Your task to perform on an android device: change the clock display to analog Image 0: 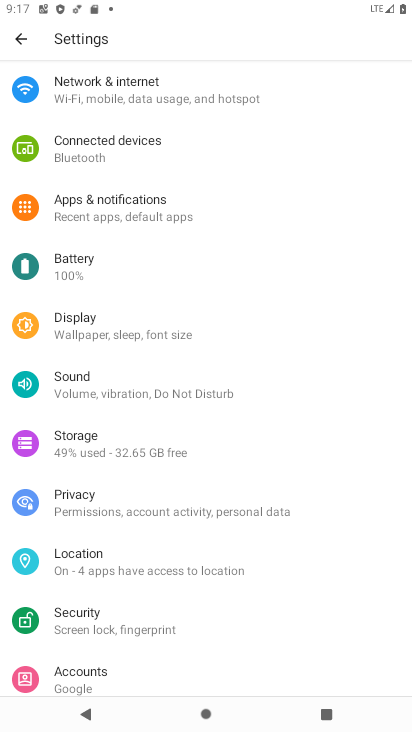
Step 0: press home button
Your task to perform on an android device: change the clock display to analog Image 1: 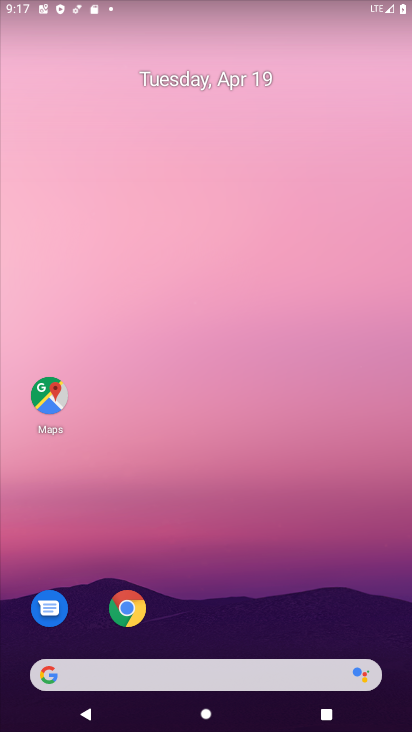
Step 1: drag from (363, 627) to (331, 119)
Your task to perform on an android device: change the clock display to analog Image 2: 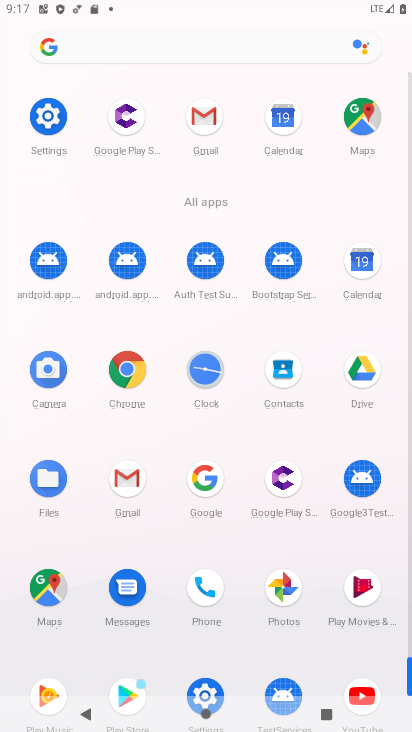
Step 2: click (204, 368)
Your task to perform on an android device: change the clock display to analog Image 3: 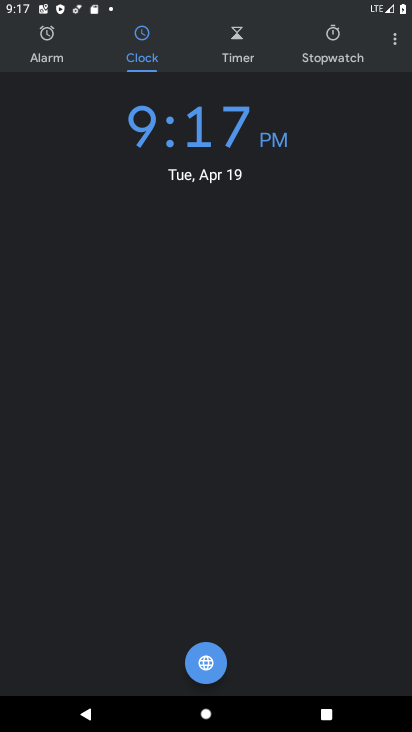
Step 3: click (394, 39)
Your task to perform on an android device: change the clock display to analog Image 4: 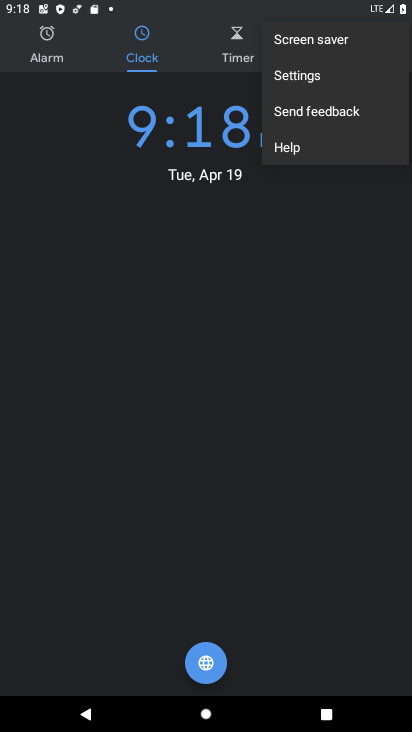
Step 4: click (296, 74)
Your task to perform on an android device: change the clock display to analog Image 5: 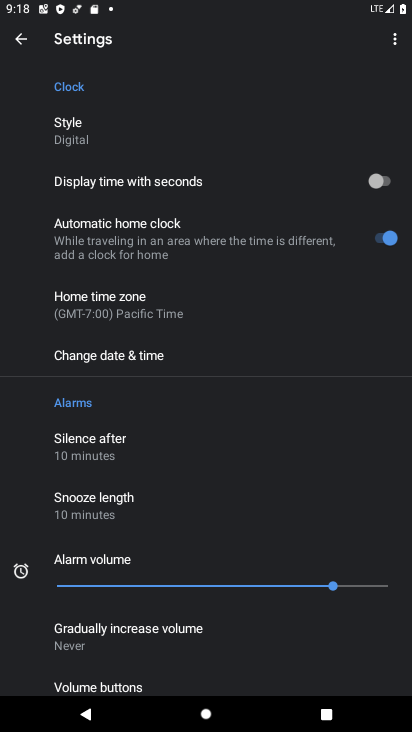
Step 5: click (65, 122)
Your task to perform on an android device: change the clock display to analog Image 6: 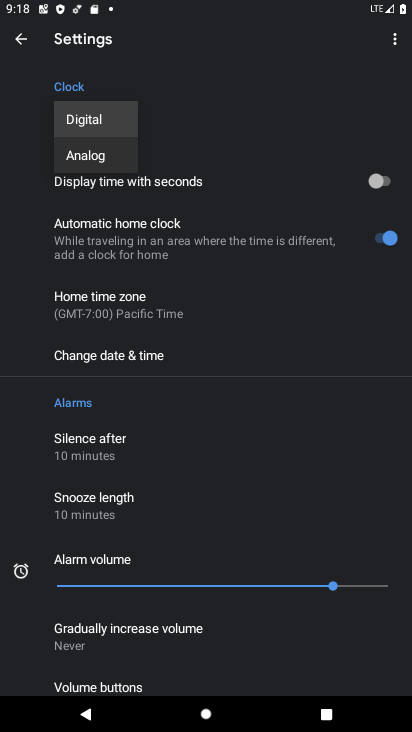
Step 6: click (86, 152)
Your task to perform on an android device: change the clock display to analog Image 7: 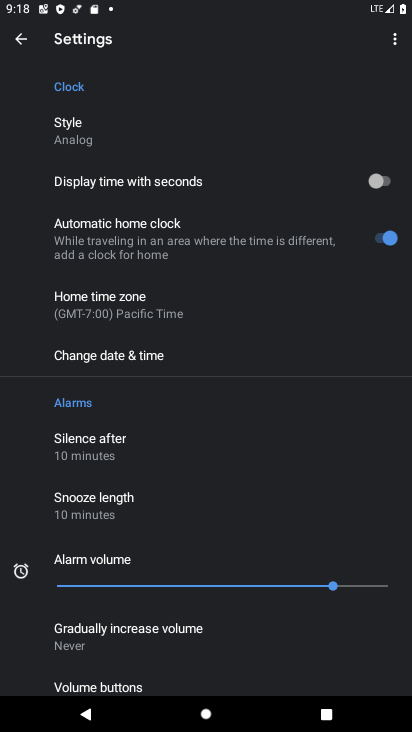
Step 7: task complete